Your task to perform on an android device: change keyboard looks Image 0: 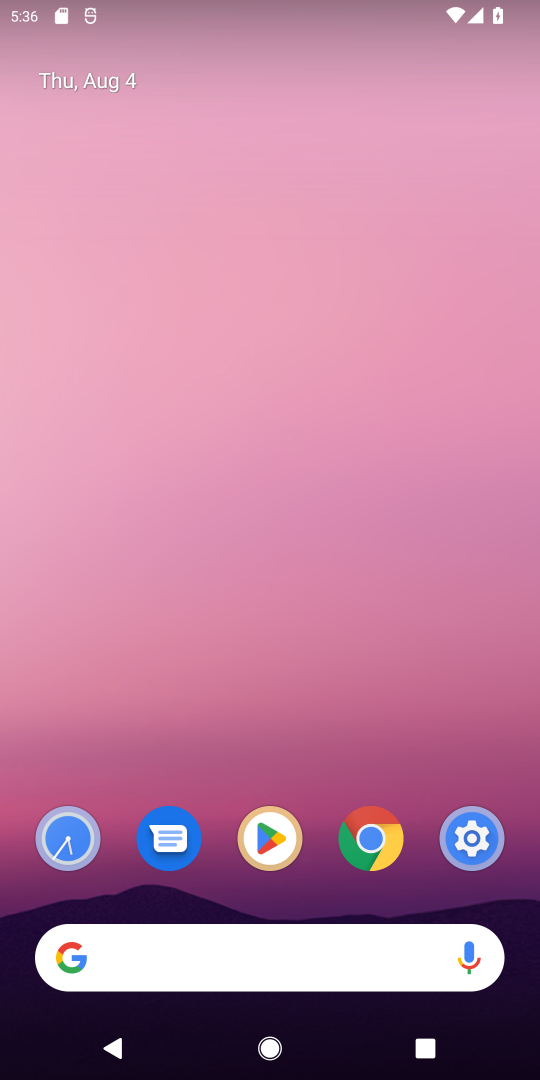
Step 0: drag from (288, 780) to (407, 19)
Your task to perform on an android device: change keyboard looks Image 1: 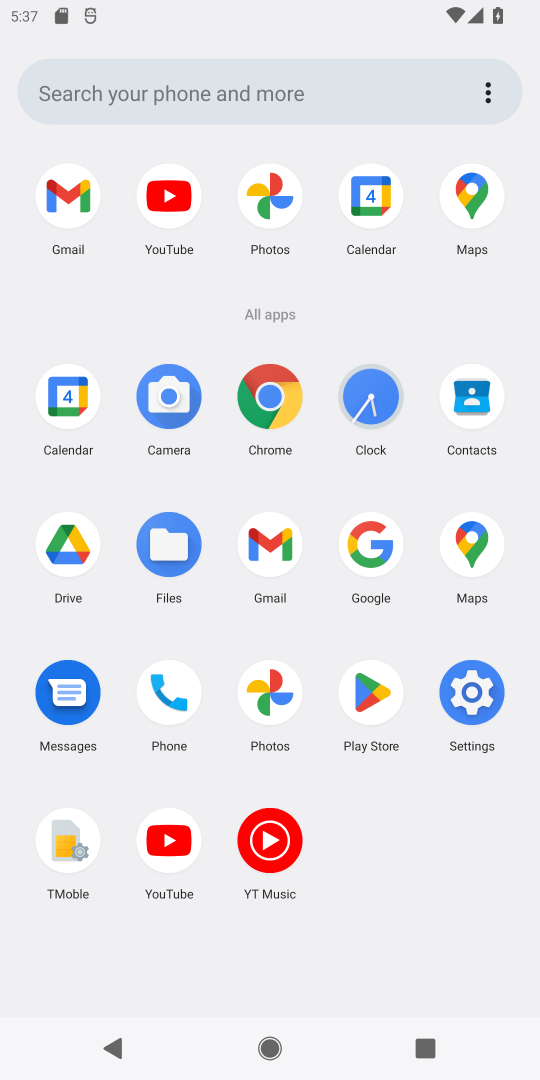
Step 1: click (507, 701)
Your task to perform on an android device: change keyboard looks Image 2: 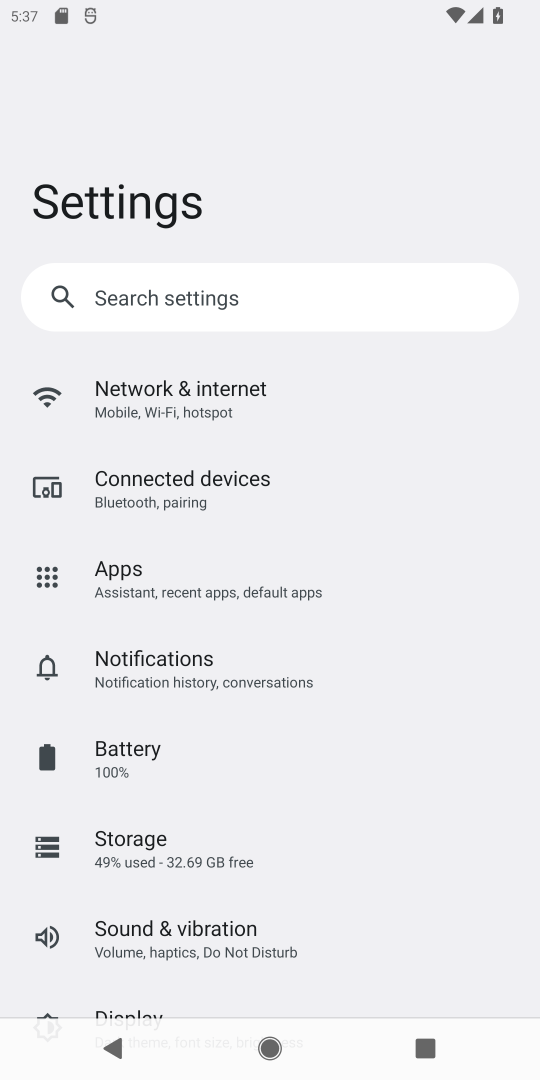
Step 2: drag from (230, 857) to (233, 123)
Your task to perform on an android device: change keyboard looks Image 3: 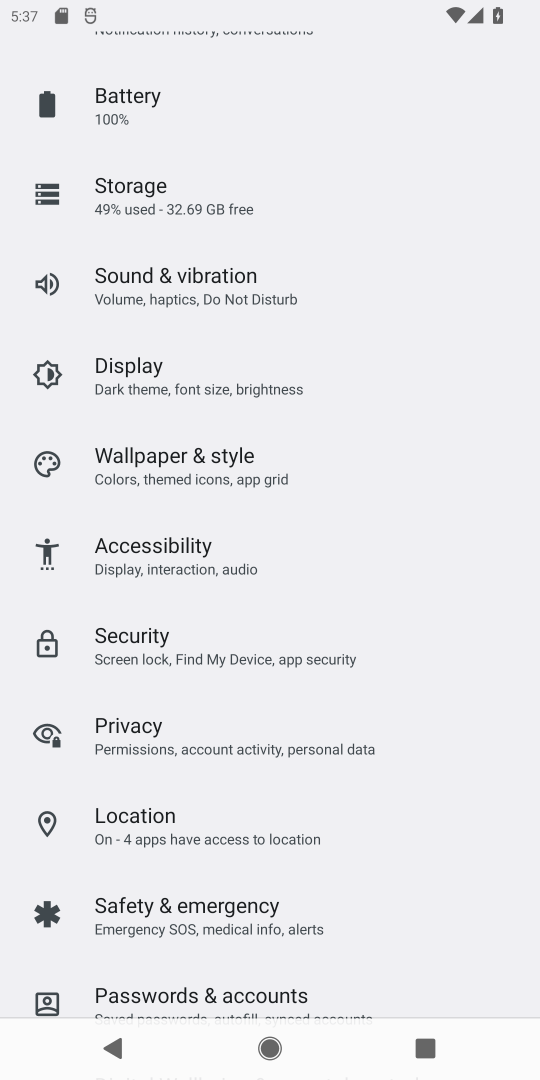
Step 3: drag from (215, 793) to (266, 201)
Your task to perform on an android device: change keyboard looks Image 4: 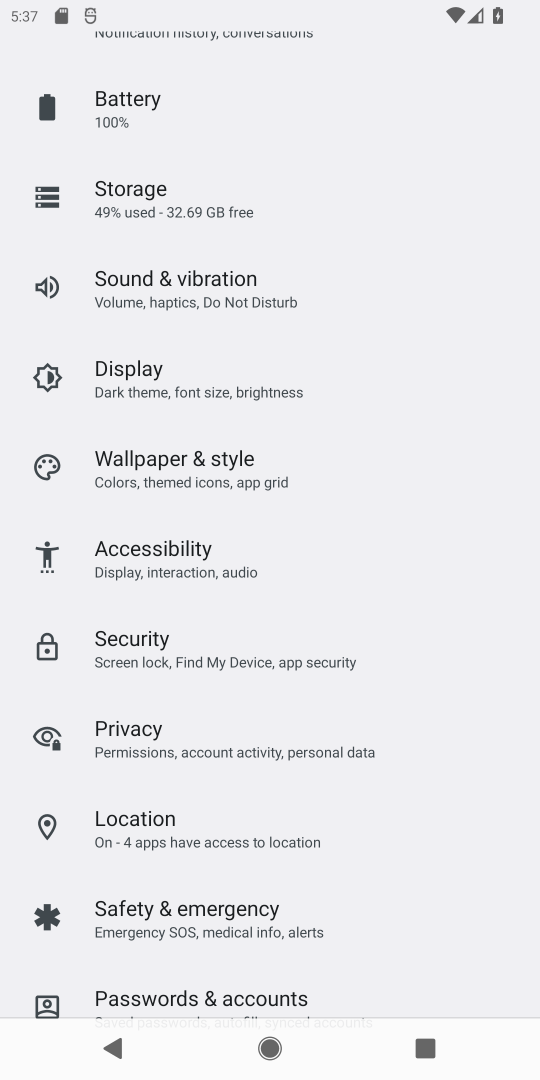
Step 4: drag from (274, 880) to (284, 292)
Your task to perform on an android device: change keyboard looks Image 5: 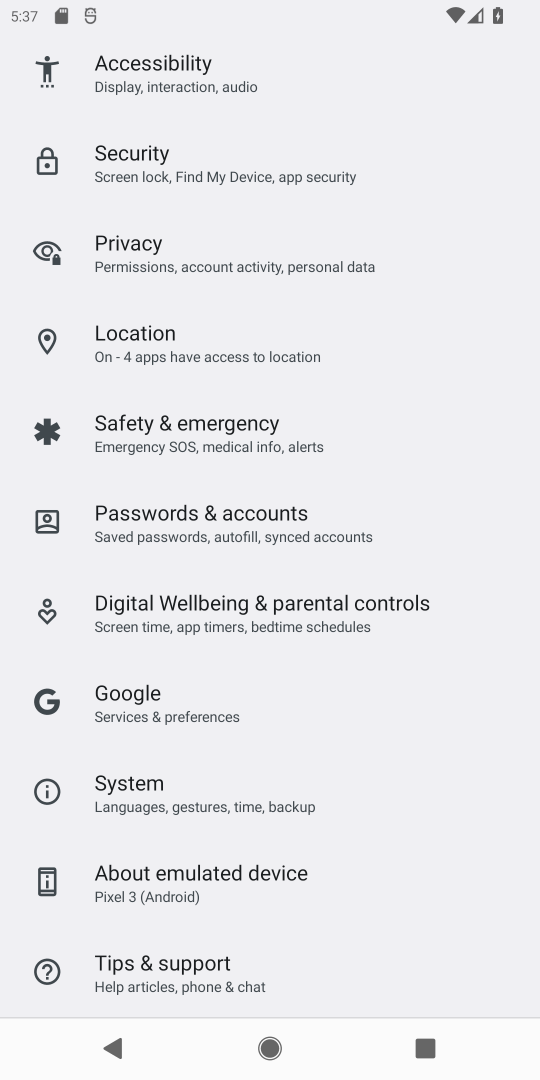
Step 5: click (181, 796)
Your task to perform on an android device: change keyboard looks Image 6: 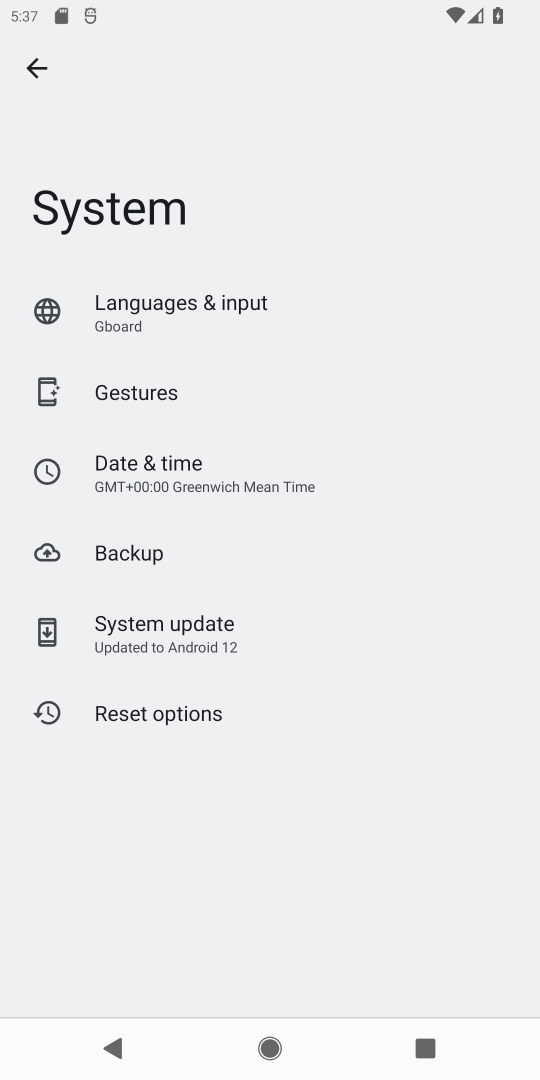
Step 6: click (138, 306)
Your task to perform on an android device: change keyboard looks Image 7: 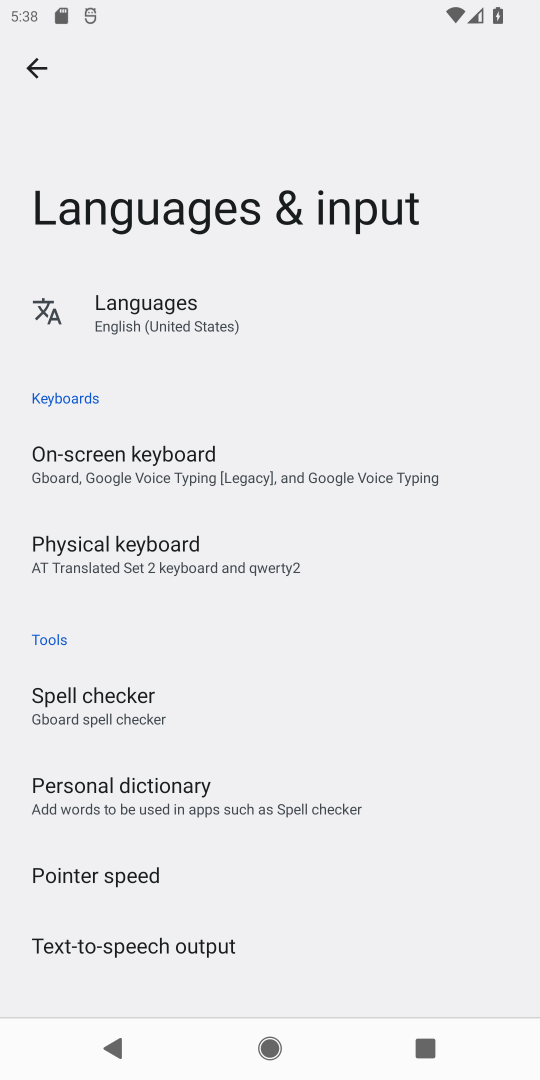
Step 7: click (94, 477)
Your task to perform on an android device: change keyboard looks Image 8: 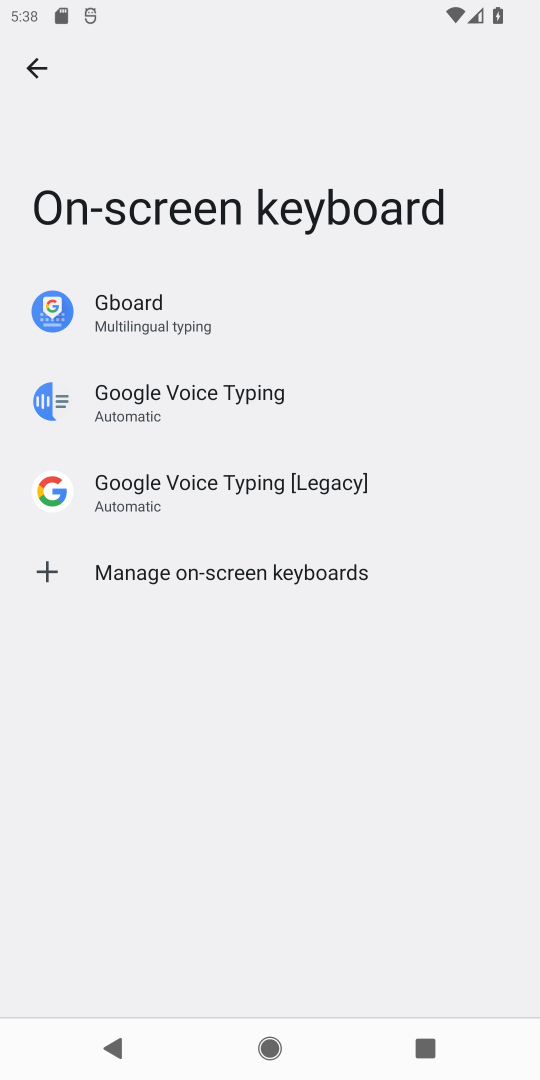
Step 8: click (124, 312)
Your task to perform on an android device: change keyboard looks Image 9: 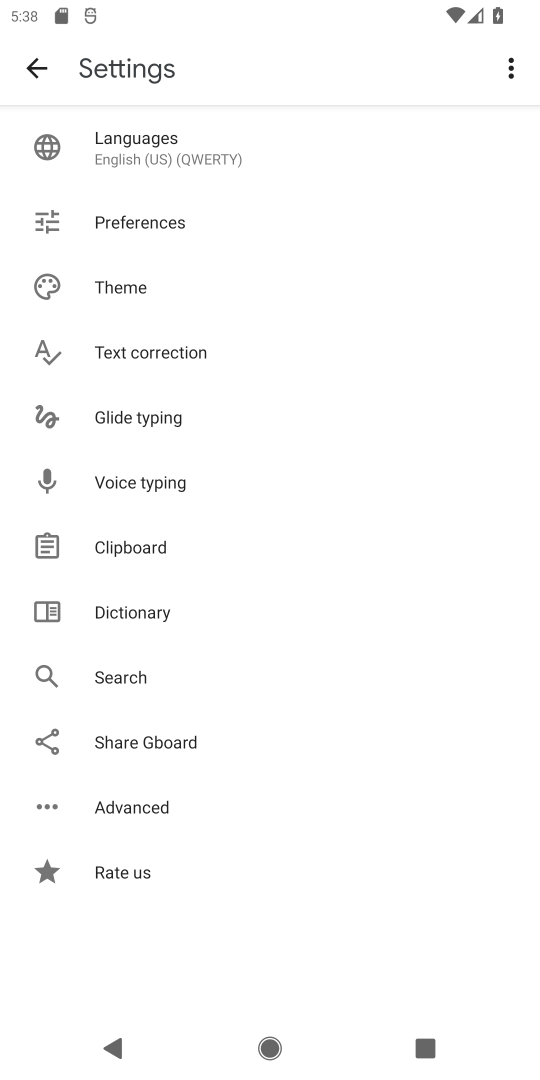
Step 9: click (77, 288)
Your task to perform on an android device: change keyboard looks Image 10: 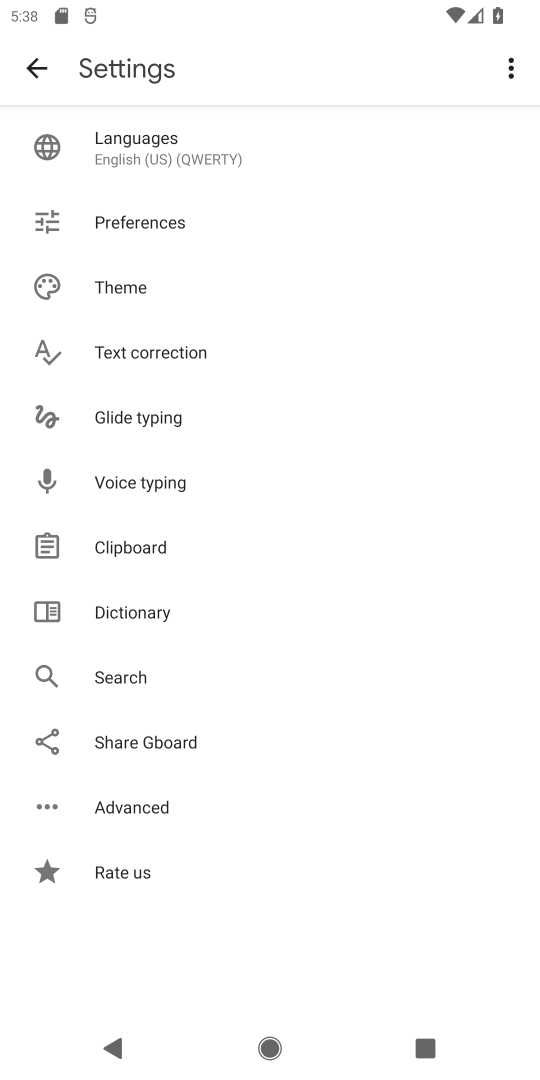
Step 10: click (77, 288)
Your task to perform on an android device: change keyboard looks Image 11: 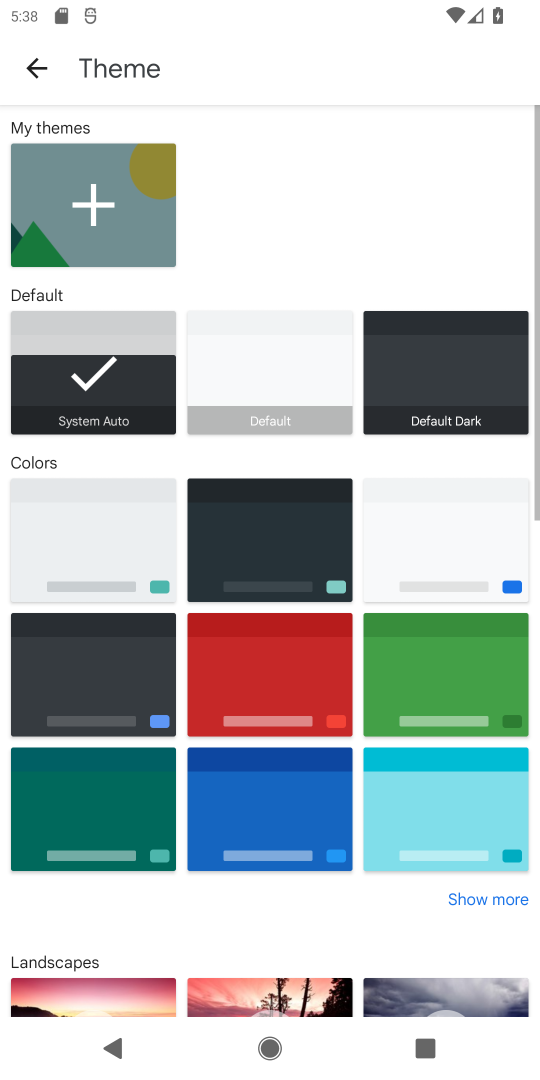
Step 11: click (224, 768)
Your task to perform on an android device: change keyboard looks Image 12: 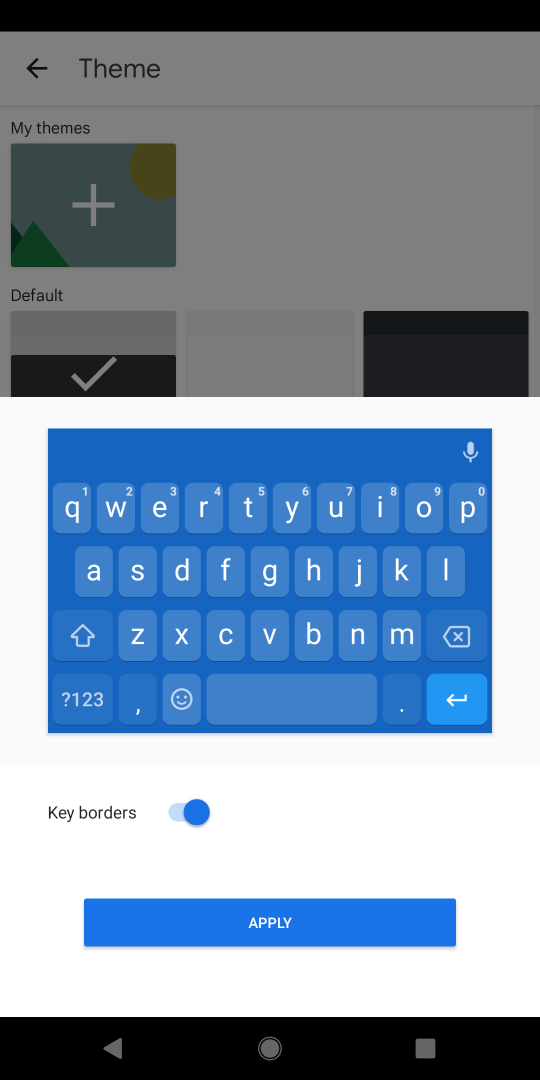
Step 12: click (179, 911)
Your task to perform on an android device: change keyboard looks Image 13: 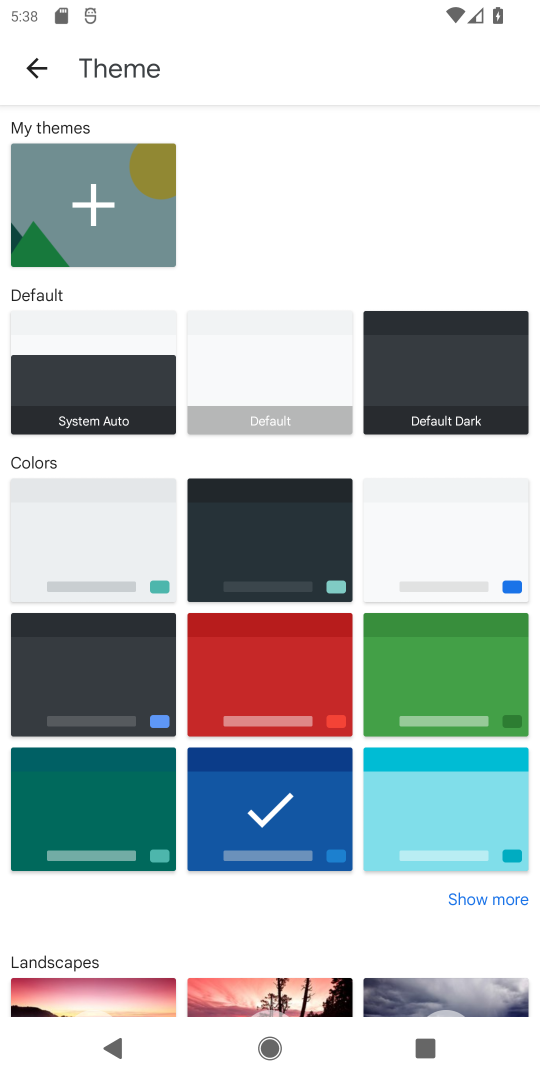
Step 13: task complete